Your task to perform on an android device: delete the emails in spam in the gmail app Image 0: 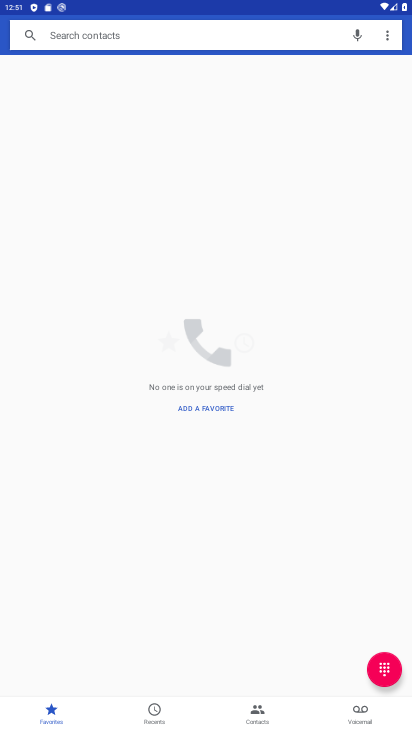
Step 0: press home button
Your task to perform on an android device: delete the emails in spam in the gmail app Image 1: 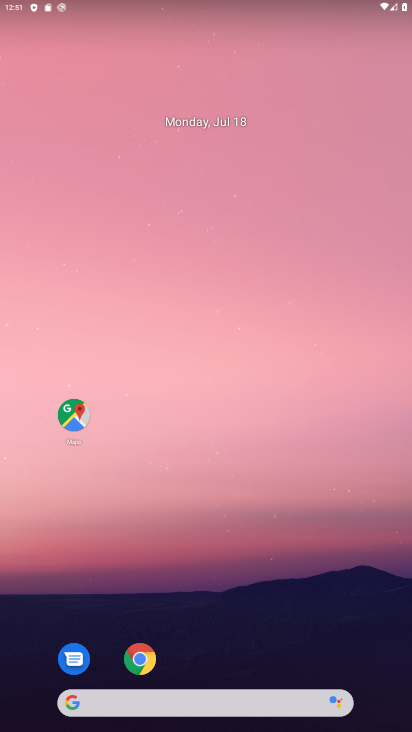
Step 1: drag from (233, 613) to (235, 121)
Your task to perform on an android device: delete the emails in spam in the gmail app Image 2: 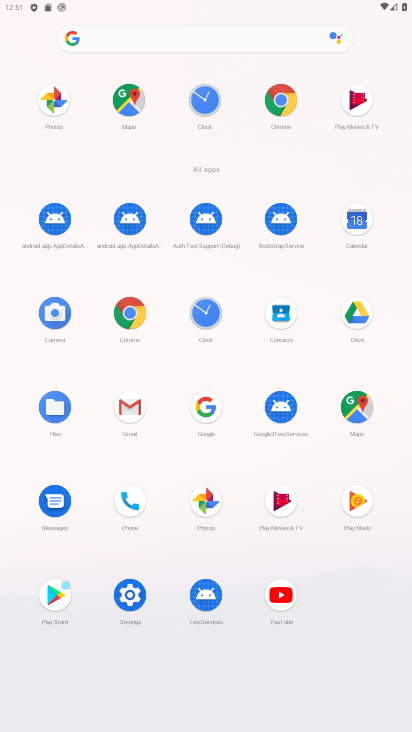
Step 2: click (126, 405)
Your task to perform on an android device: delete the emails in spam in the gmail app Image 3: 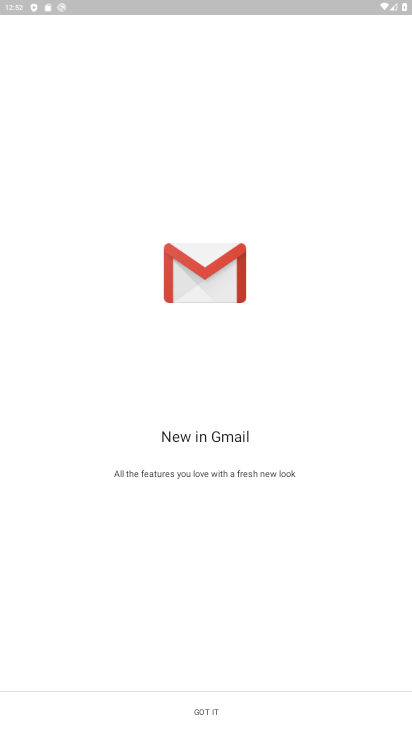
Step 3: click (283, 700)
Your task to perform on an android device: delete the emails in spam in the gmail app Image 4: 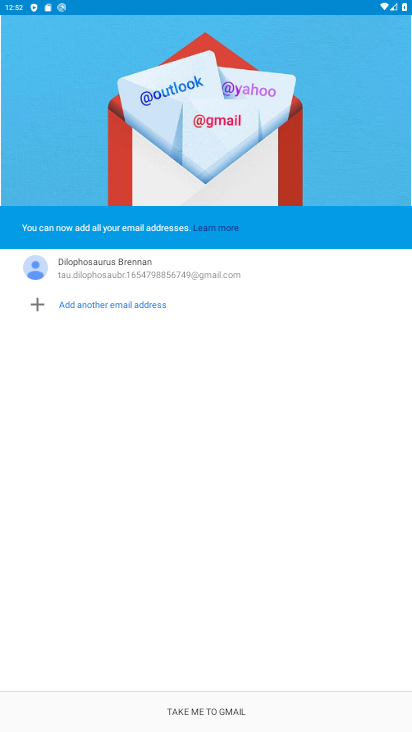
Step 4: click (195, 713)
Your task to perform on an android device: delete the emails in spam in the gmail app Image 5: 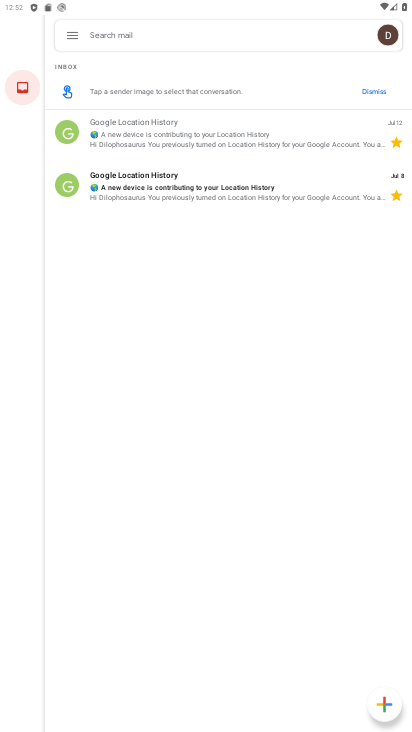
Step 5: click (70, 33)
Your task to perform on an android device: delete the emails in spam in the gmail app Image 6: 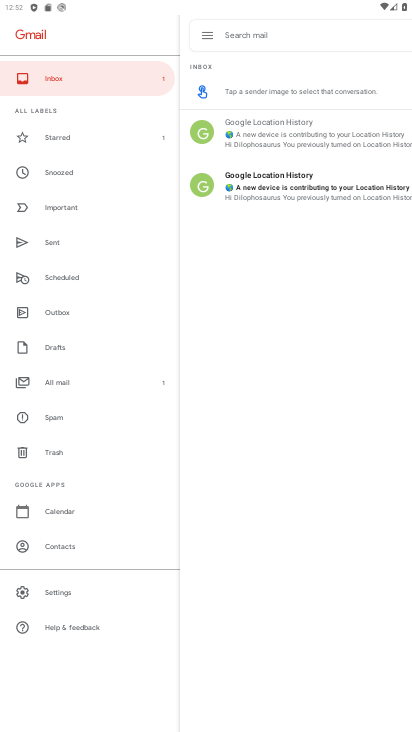
Step 6: click (57, 419)
Your task to perform on an android device: delete the emails in spam in the gmail app Image 7: 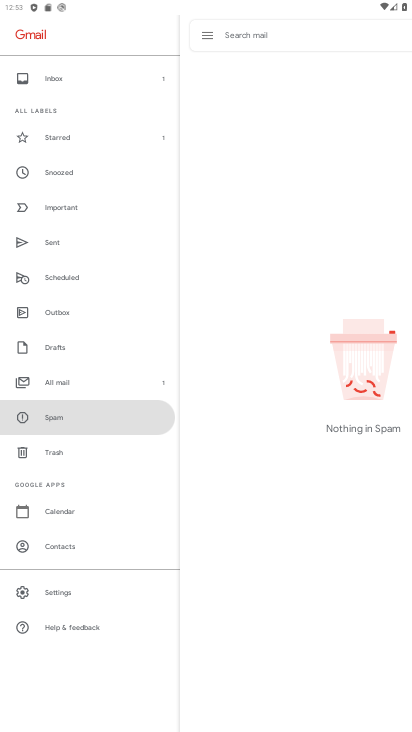
Step 7: task complete